Your task to perform on an android device: Is it going to rain today? Image 0: 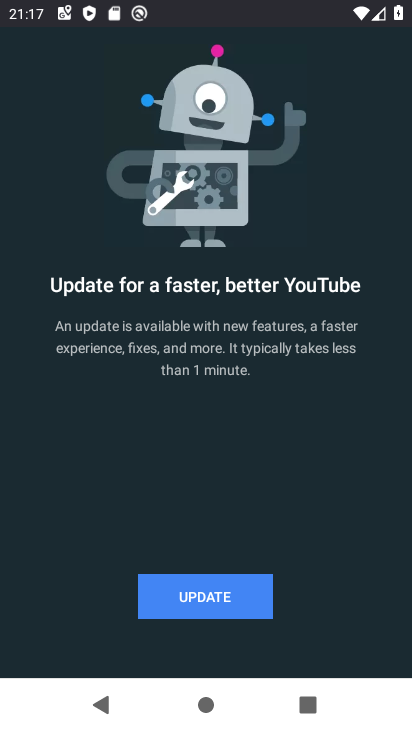
Step 0: press home button
Your task to perform on an android device: Is it going to rain today? Image 1: 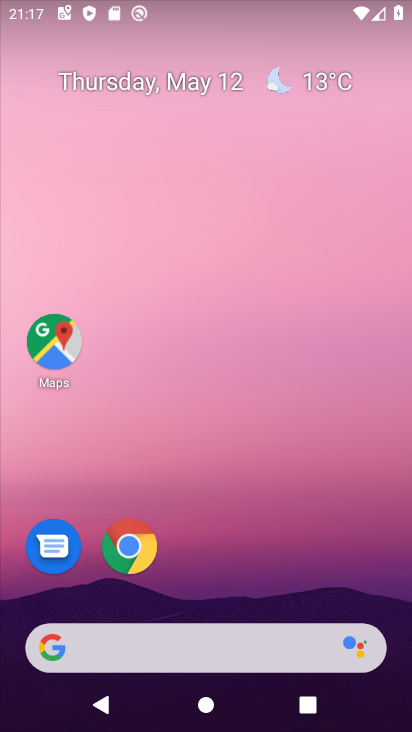
Step 1: click (142, 543)
Your task to perform on an android device: Is it going to rain today? Image 2: 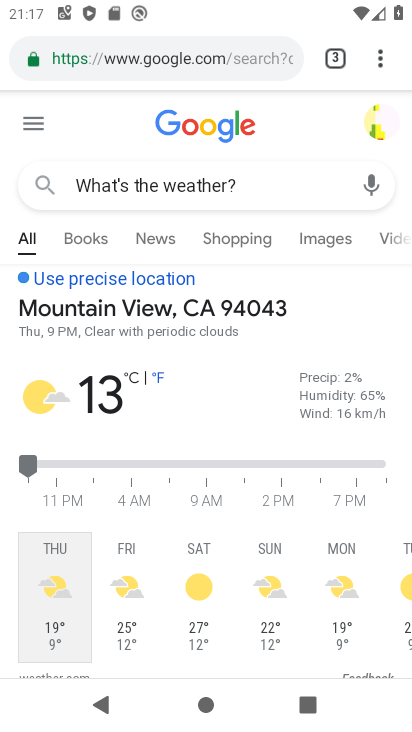
Step 2: click (258, 59)
Your task to perform on an android device: Is it going to rain today? Image 3: 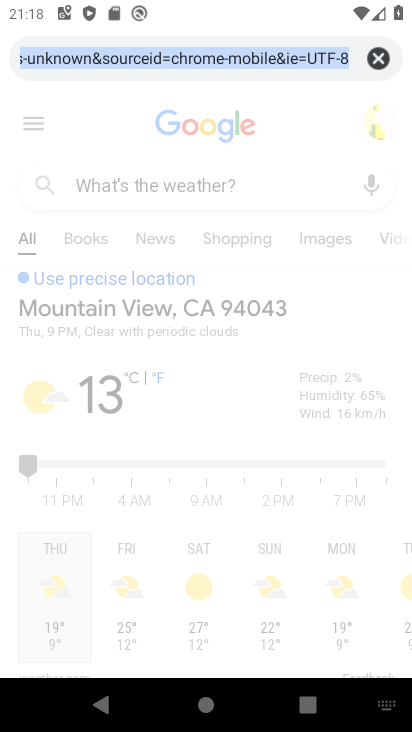
Step 3: click (375, 54)
Your task to perform on an android device: Is it going to rain today? Image 4: 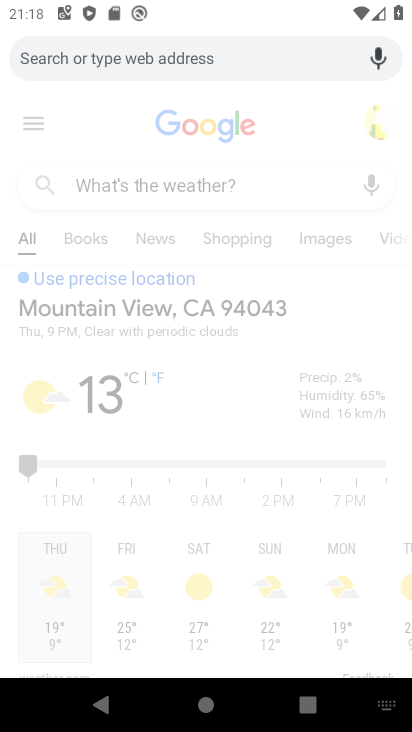
Step 4: type "Is it going to rain today?"
Your task to perform on an android device: Is it going to rain today? Image 5: 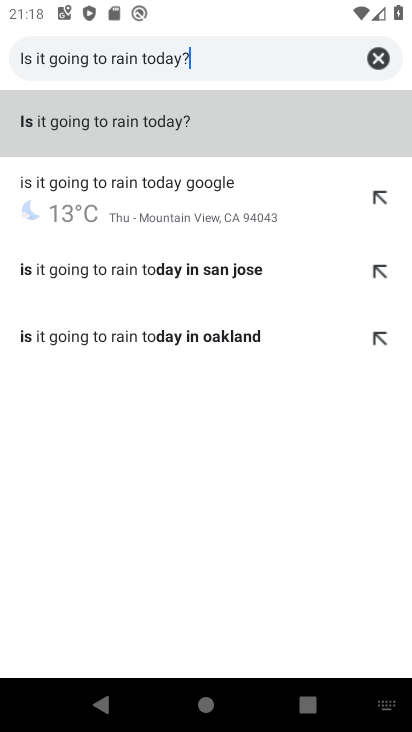
Step 5: click (73, 110)
Your task to perform on an android device: Is it going to rain today? Image 6: 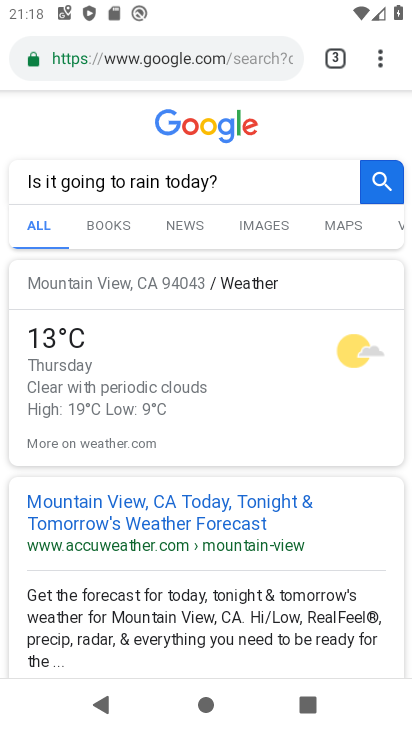
Step 6: task complete